Your task to perform on an android device: turn on notifications settings in the gmail app Image 0: 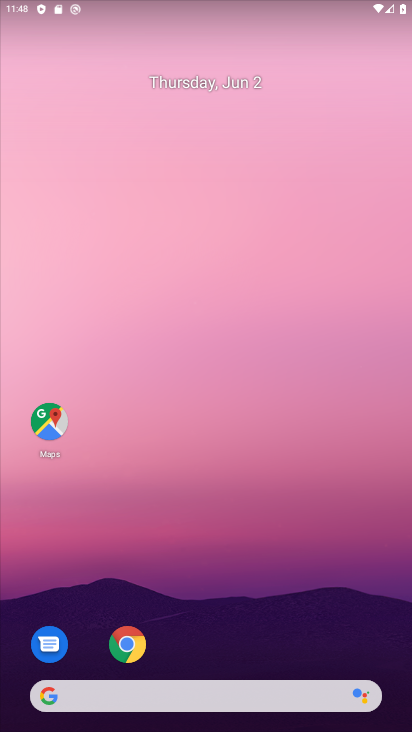
Step 0: drag from (230, 731) to (227, 13)
Your task to perform on an android device: turn on notifications settings in the gmail app Image 1: 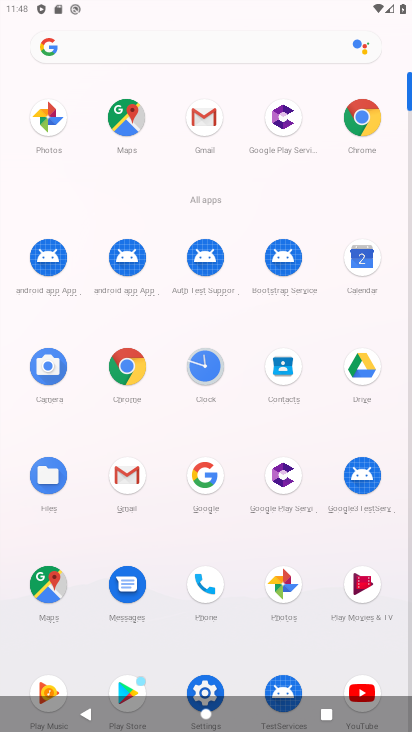
Step 1: click (130, 479)
Your task to perform on an android device: turn on notifications settings in the gmail app Image 2: 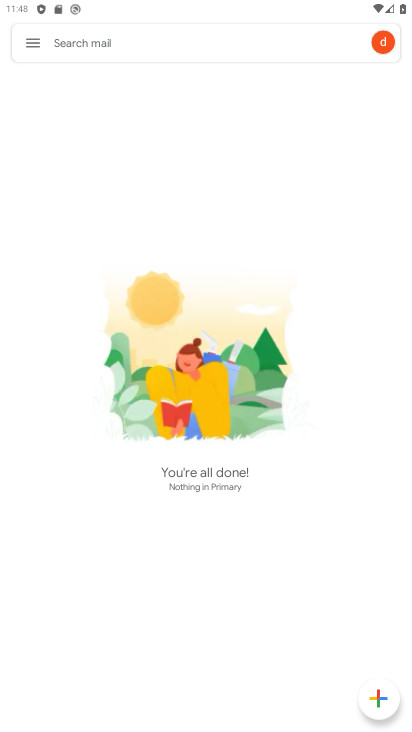
Step 2: click (35, 41)
Your task to perform on an android device: turn on notifications settings in the gmail app Image 3: 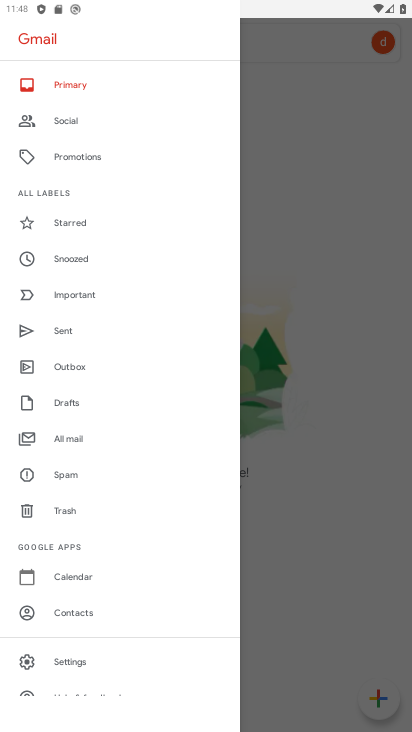
Step 3: click (76, 661)
Your task to perform on an android device: turn on notifications settings in the gmail app Image 4: 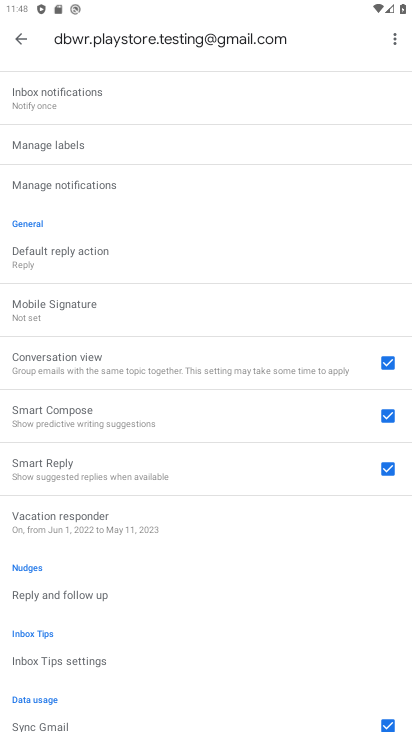
Step 4: task complete